Your task to perform on an android device: change your default location settings in chrome Image 0: 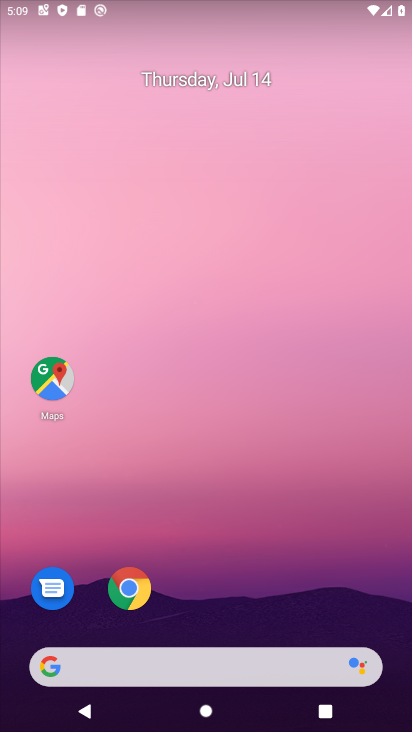
Step 0: drag from (228, 515) to (272, 235)
Your task to perform on an android device: change your default location settings in chrome Image 1: 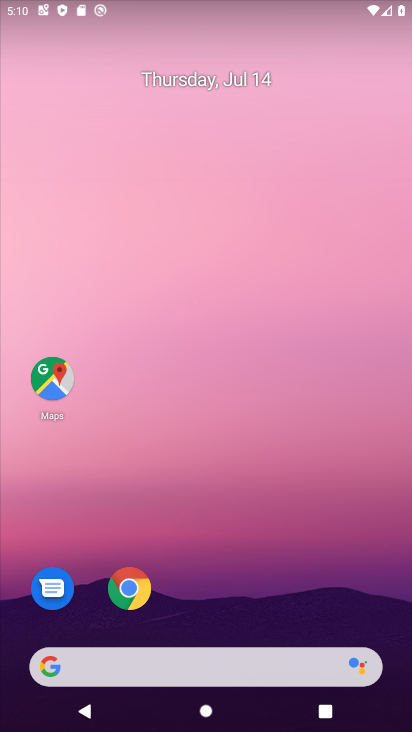
Step 1: drag from (231, 643) to (227, 288)
Your task to perform on an android device: change your default location settings in chrome Image 2: 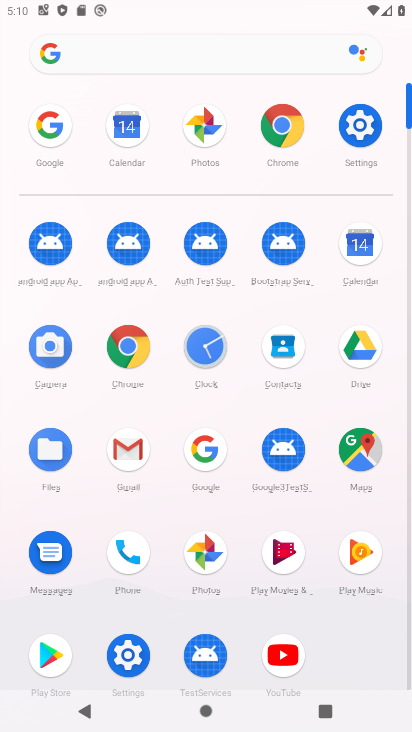
Step 2: click (282, 127)
Your task to perform on an android device: change your default location settings in chrome Image 3: 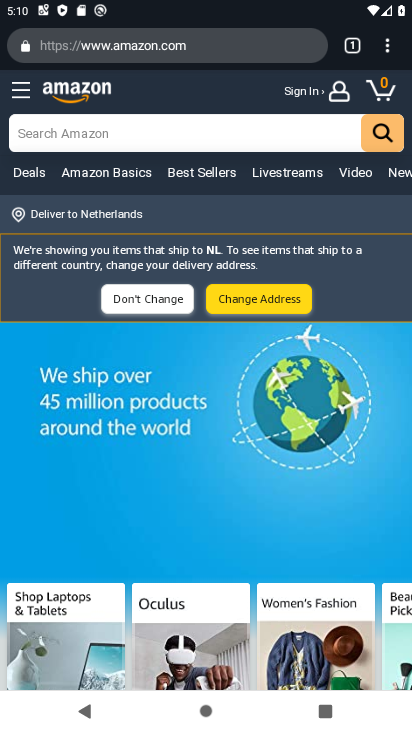
Step 3: click (383, 45)
Your task to perform on an android device: change your default location settings in chrome Image 4: 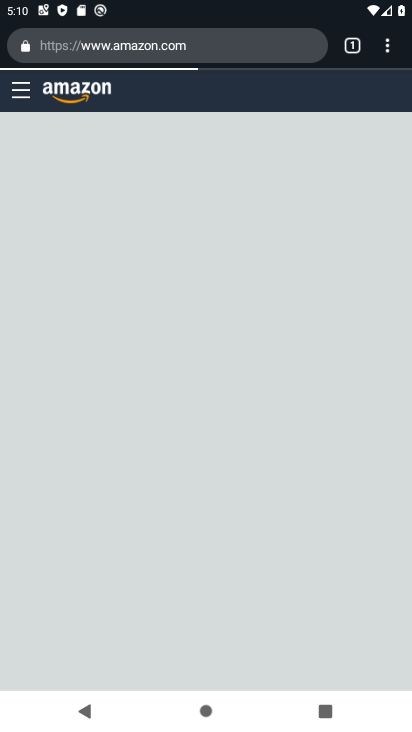
Step 4: click (383, 46)
Your task to perform on an android device: change your default location settings in chrome Image 5: 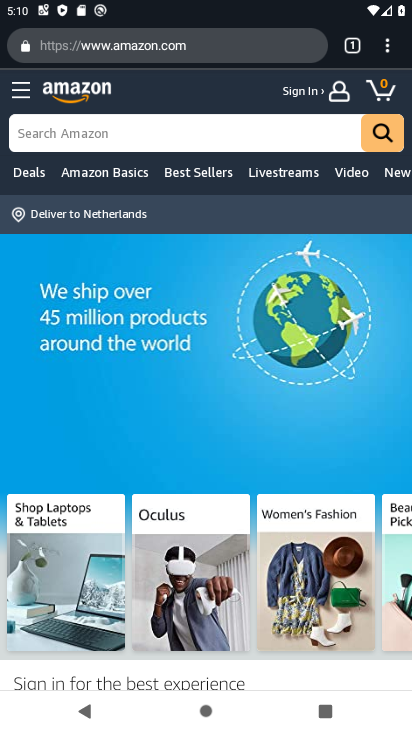
Step 5: click (389, 50)
Your task to perform on an android device: change your default location settings in chrome Image 6: 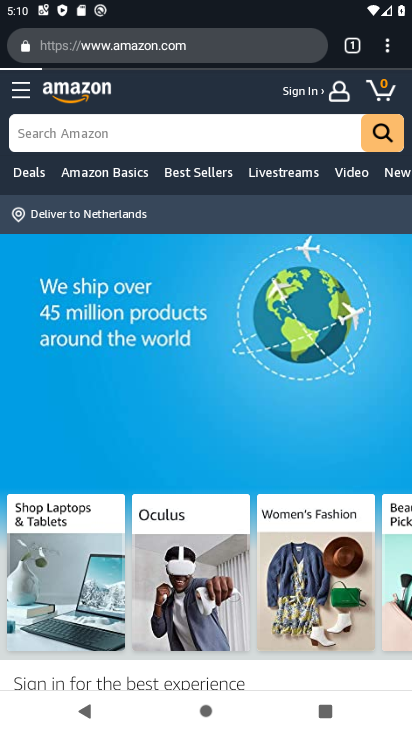
Step 6: click (389, 50)
Your task to perform on an android device: change your default location settings in chrome Image 7: 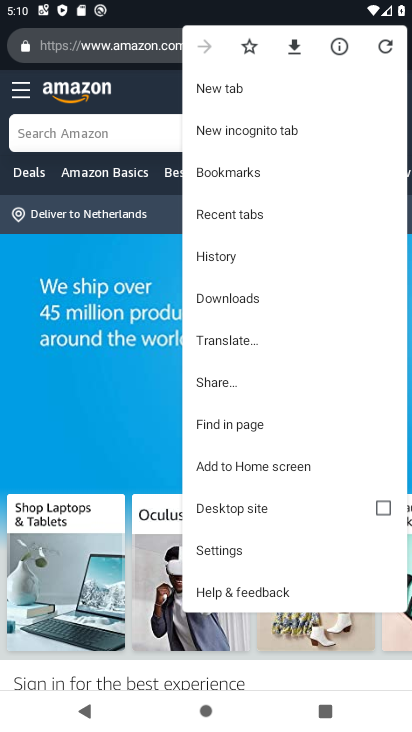
Step 7: click (204, 553)
Your task to perform on an android device: change your default location settings in chrome Image 8: 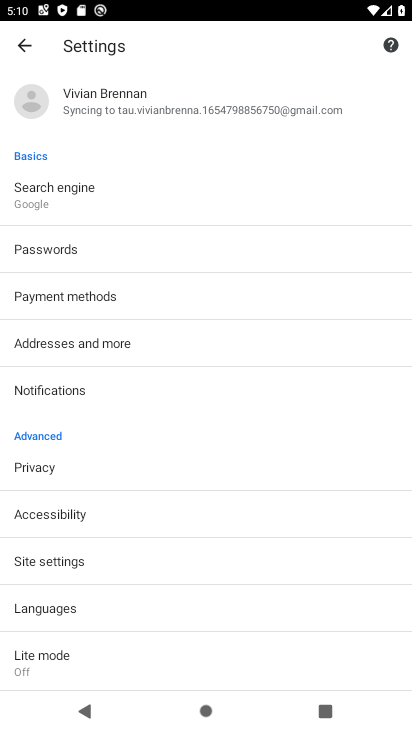
Step 8: click (30, 564)
Your task to perform on an android device: change your default location settings in chrome Image 9: 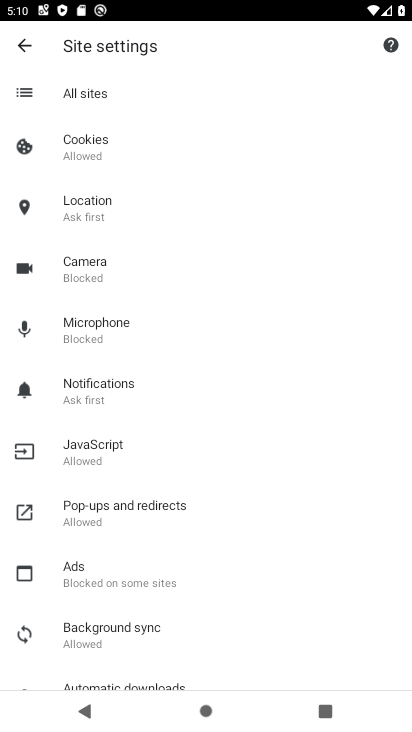
Step 9: click (89, 205)
Your task to perform on an android device: change your default location settings in chrome Image 10: 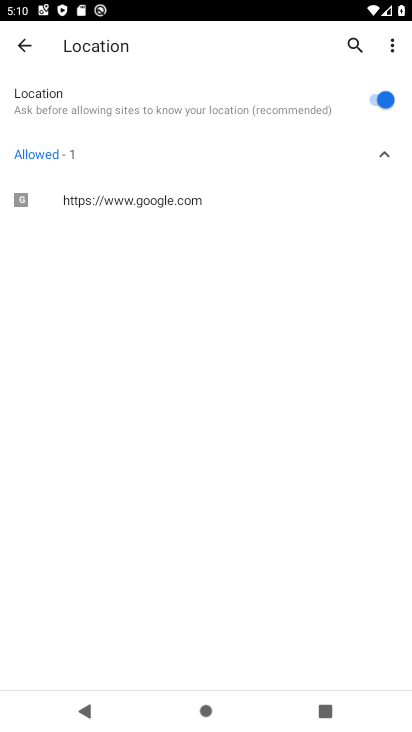
Step 10: click (379, 98)
Your task to perform on an android device: change your default location settings in chrome Image 11: 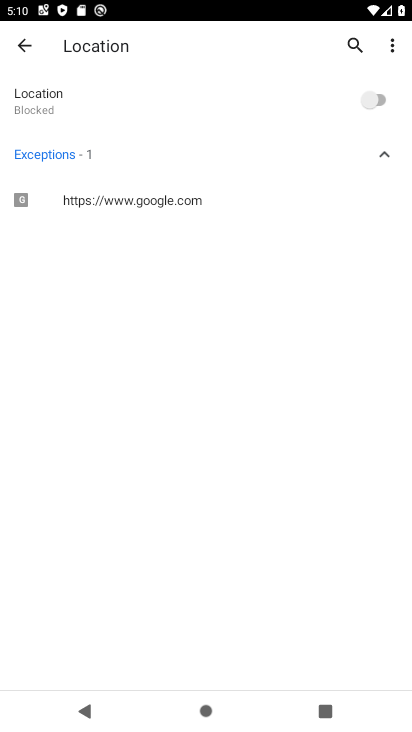
Step 11: task complete